Your task to perform on an android device: Open calendar and show me the fourth week of next month Image 0: 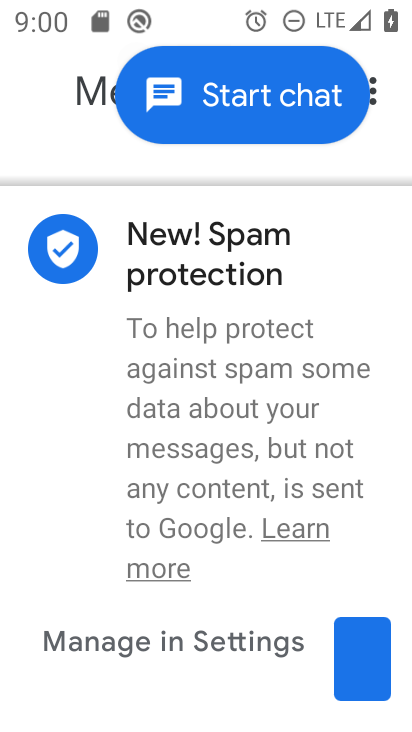
Step 0: press home button
Your task to perform on an android device: Open calendar and show me the fourth week of next month Image 1: 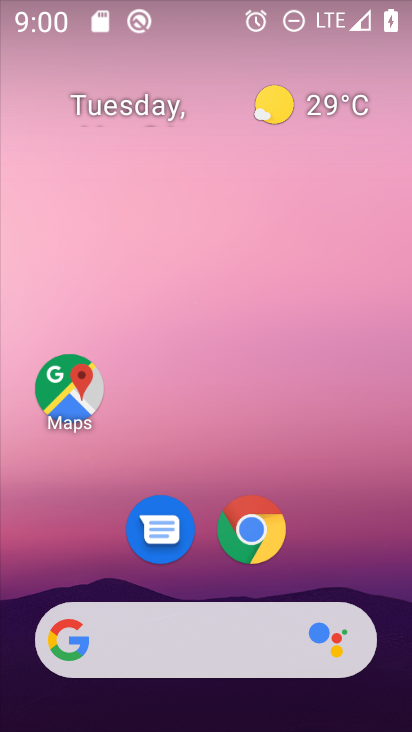
Step 1: drag from (395, 636) to (412, 373)
Your task to perform on an android device: Open calendar and show me the fourth week of next month Image 2: 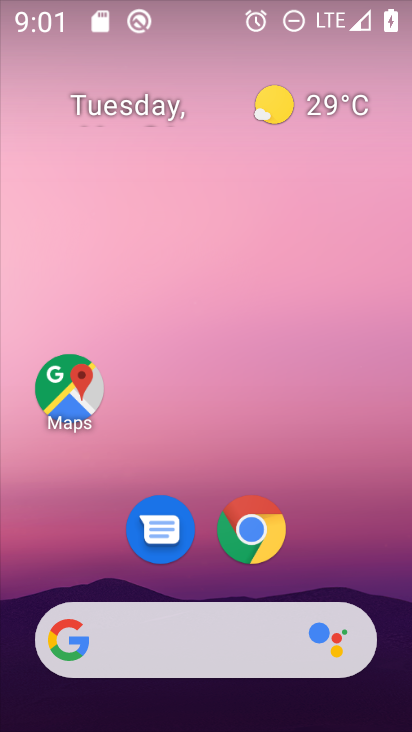
Step 2: drag from (390, 623) to (251, 9)
Your task to perform on an android device: Open calendar and show me the fourth week of next month Image 3: 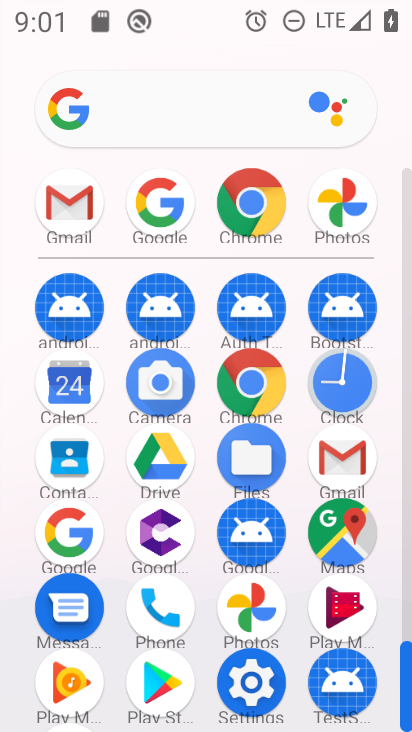
Step 3: click (68, 388)
Your task to perform on an android device: Open calendar and show me the fourth week of next month Image 4: 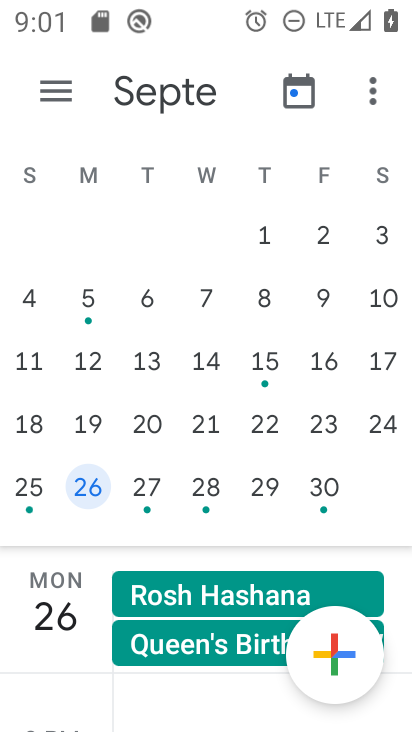
Step 4: drag from (375, 377) to (109, 388)
Your task to perform on an android device: Open calendar and show me the fourth week of next month Image 5: 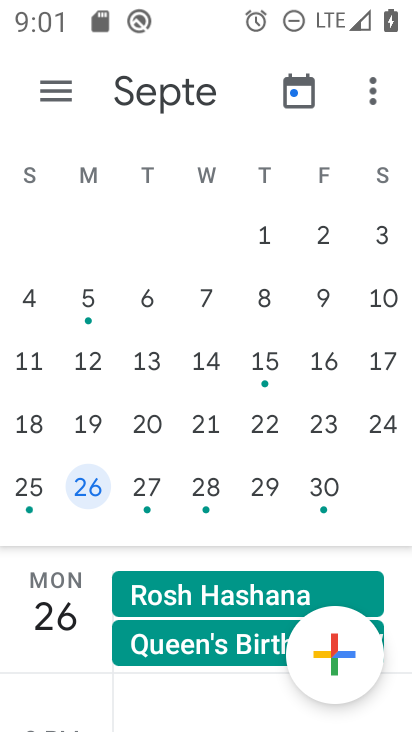
Step 5: drag from (348, 374) to (69, 361)
Your task to perform on an android device: Open calendar and show me the fourth week of next month Image 6: 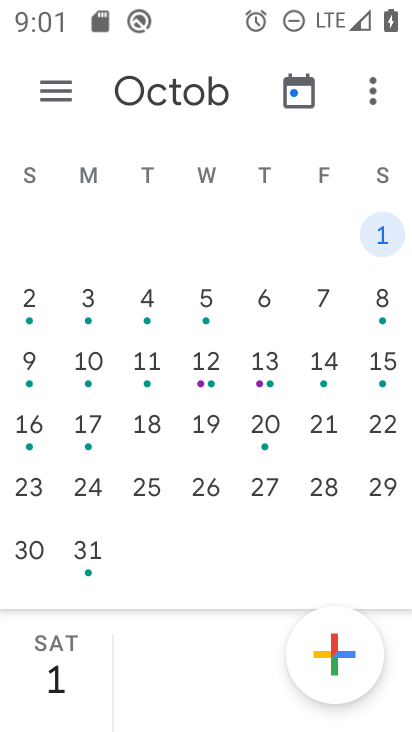
Step 6: click (140, 479)
Your task to perform on an android device: Open calendar and show me the fourth week of next month Image 7: 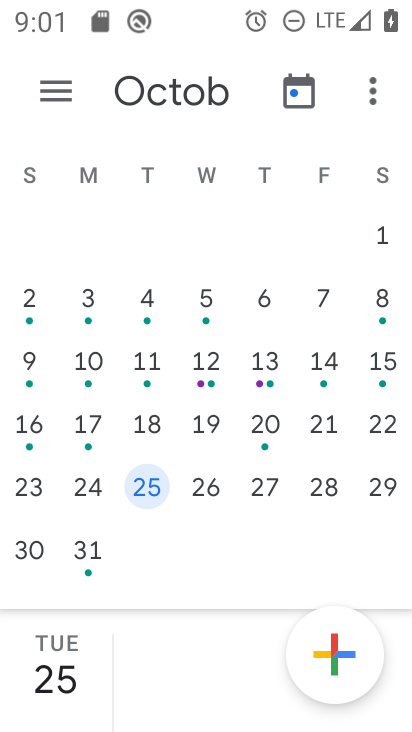
Step 7: task complete